Your task to perform on an android device: refresh tabs in the chrome app Image 0: 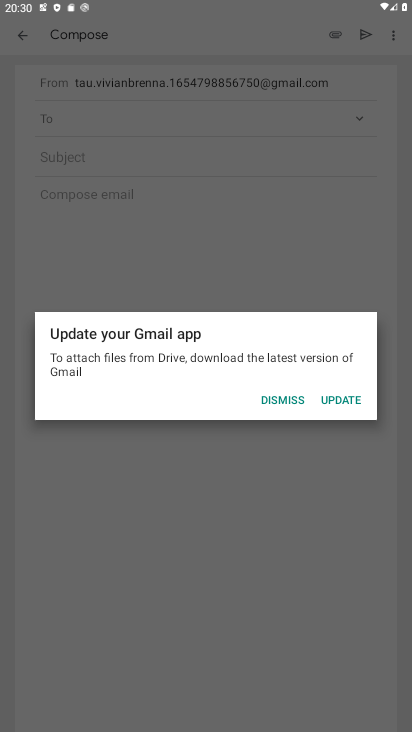
Step 0: press home button
Your task to perform on an android device: refresh tabs in the chrome app Image 1: 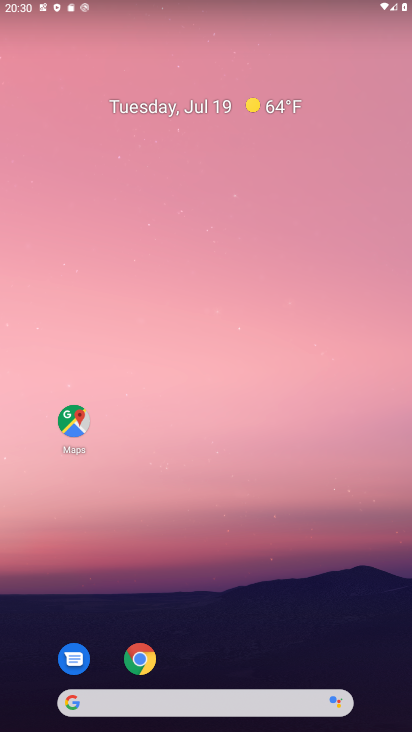
Step 1: click (124, 654)
Your task to perform on an android device: refresh tabs in the chrome app Image 2: 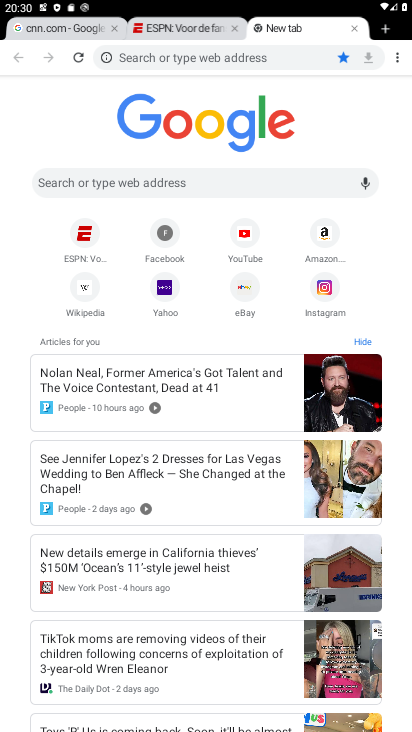
Step 2: click (83, 65)
Your task to perform on an android device: refresh tabs in the chrome app Image 3: 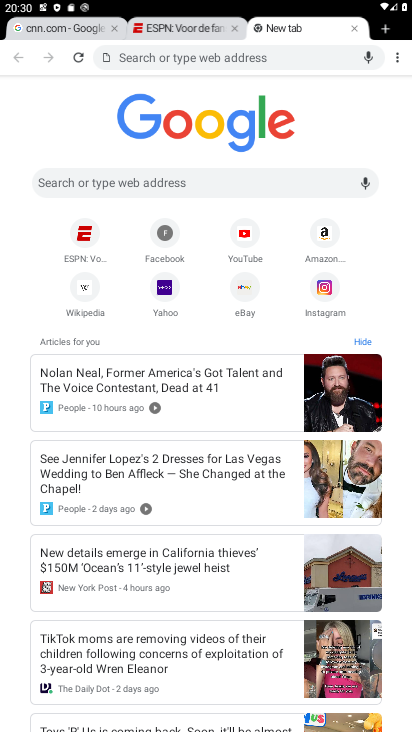
Step 3: task complete